Your task to perform on an android device: Open Google Chrome and click the shortcut for Amazon.com Image 0: 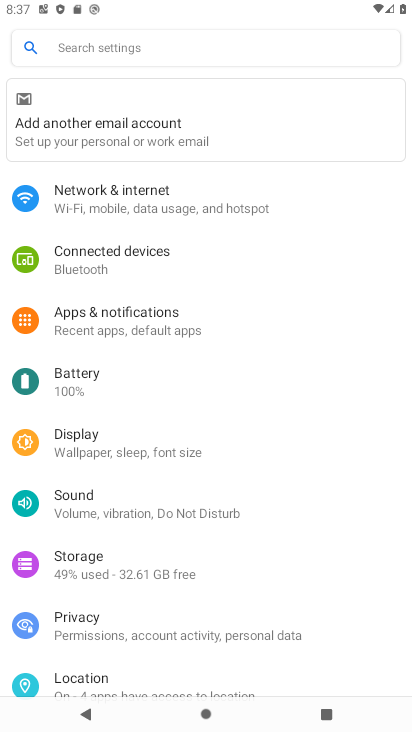
Step 0: press home button
Your task to perform on an android device: Open Google Chrome and click the shortcut for Amazon.com Image 1: 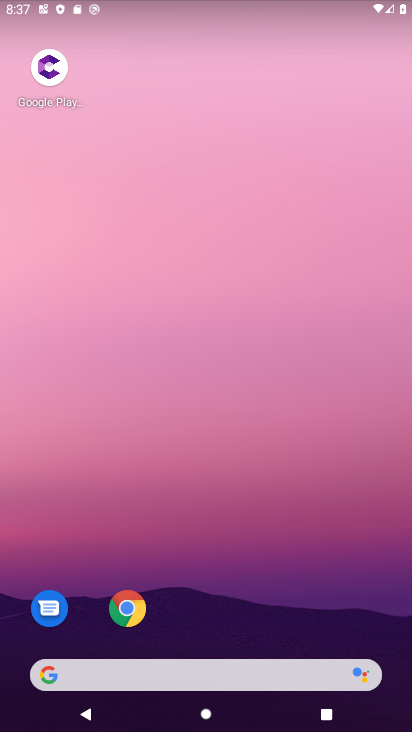
Step 1: click (124, 612)
Your task to perform on an android device: Open Google Chrome and click the shortcut for Amazon.com Image 2: 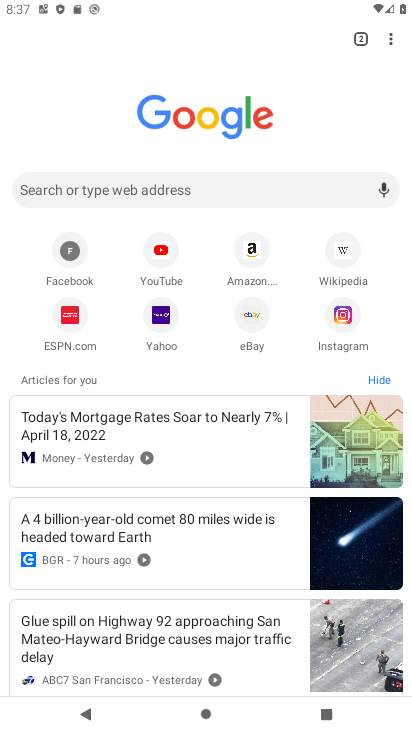
Step 2: click (249, 254)
Your task to perform on an android device: Open Google Chrome and click the shortcut for Amazon.com Image 3: 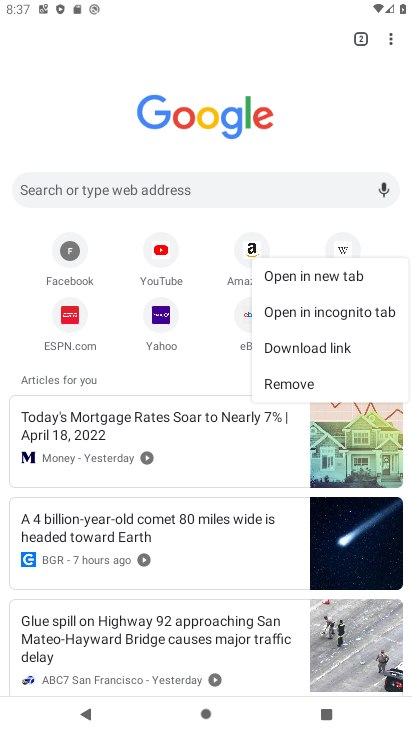
Step 3: click (249, 254)
Your task to perform on an android device: Open Google Chrome and click the shortcut for Amazon.com Image 4: 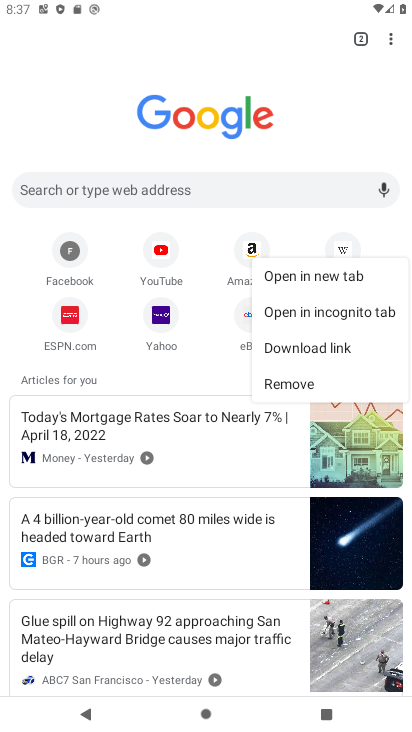
Step 4: click (243, 252)
Your task to perform on an android device: Open Google Chrome and click the shortcut for Amazon.com Image 5: 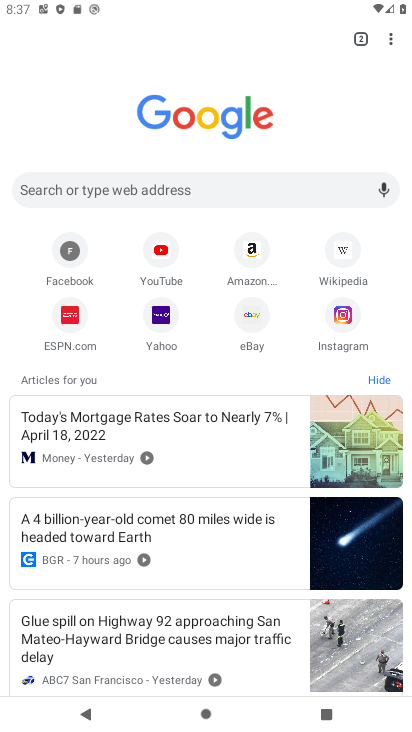
Step 5: click (249, 249)
Your task to perform on an android device: Open Google Chrome and click the shortcut for Amazon.com Image 6: 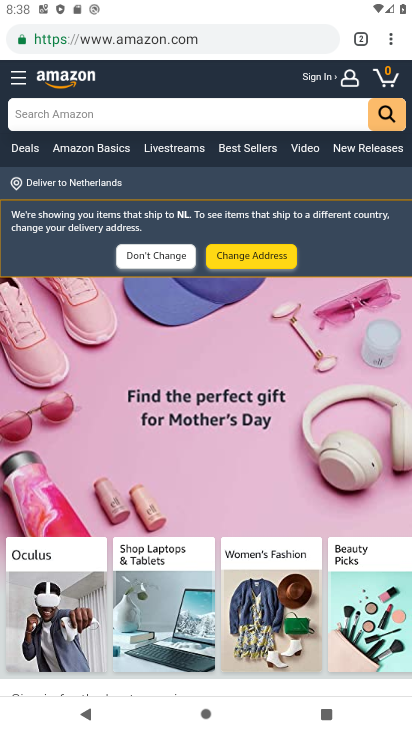
Step 6: task complete